Your task to perform on an android device: uninstall "Walmart Shopping & Grocery" Image 0: 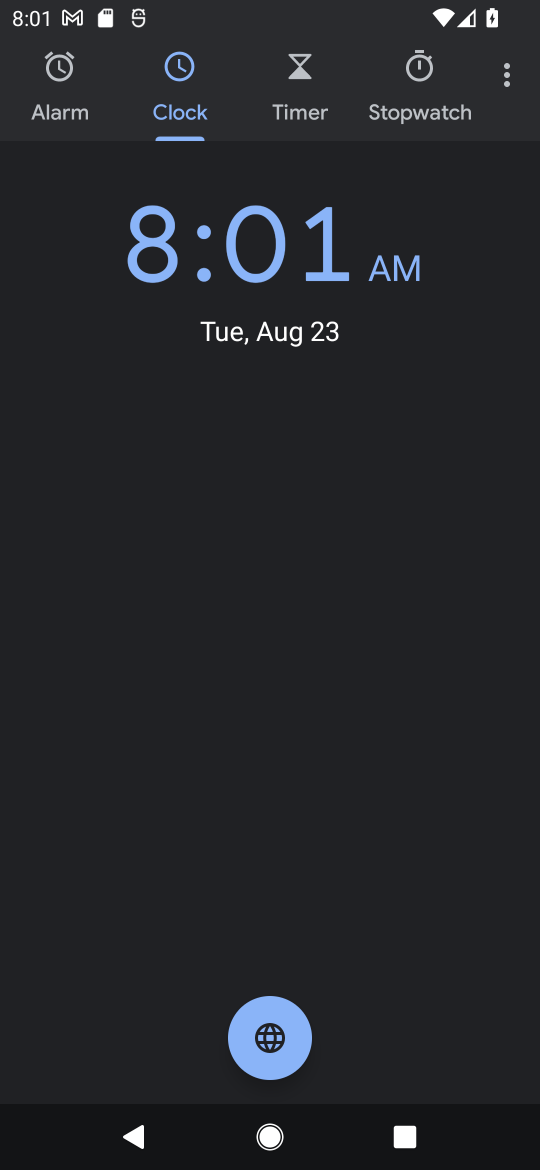
Step 0: press home button
Your task to perform on an android device: uninstall "Walmart Shopping & Grocery" Image 1: 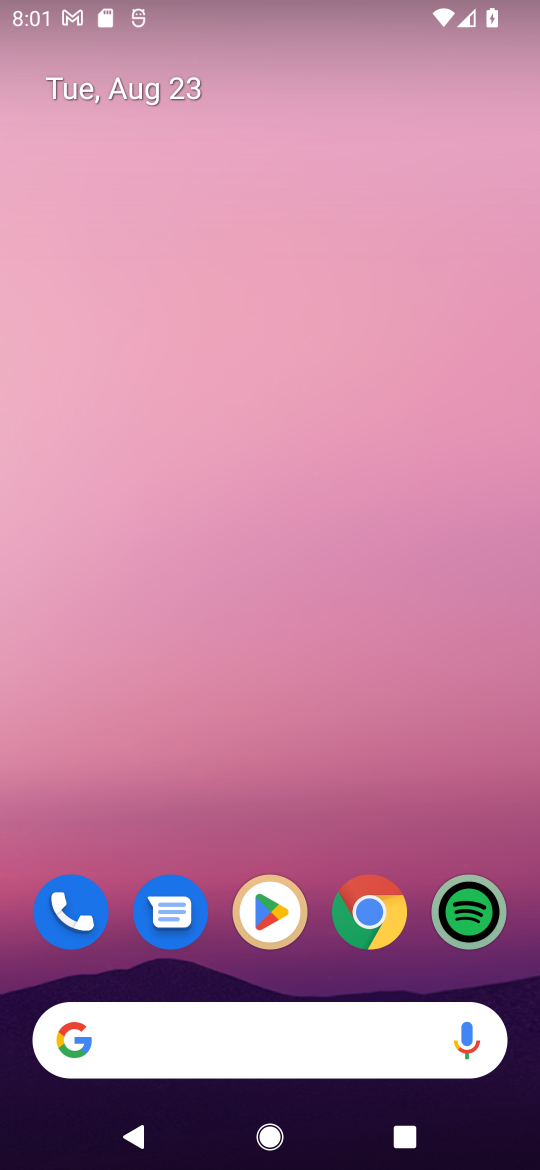
Step 1: click (271, 904)
Your task to perform on an android device: uninstall "Walmart Shopping & Grocery" Image 2: 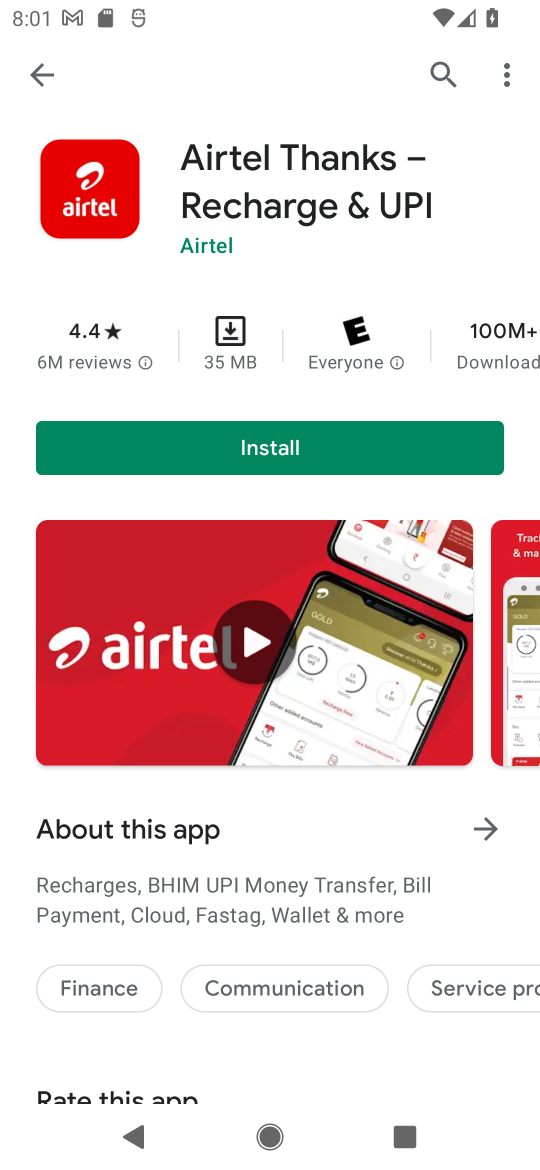
Step 2: click (446, 73)
Your task to perform on an android device: uninstall "Walmart Shopping & Grocery" Image 3: 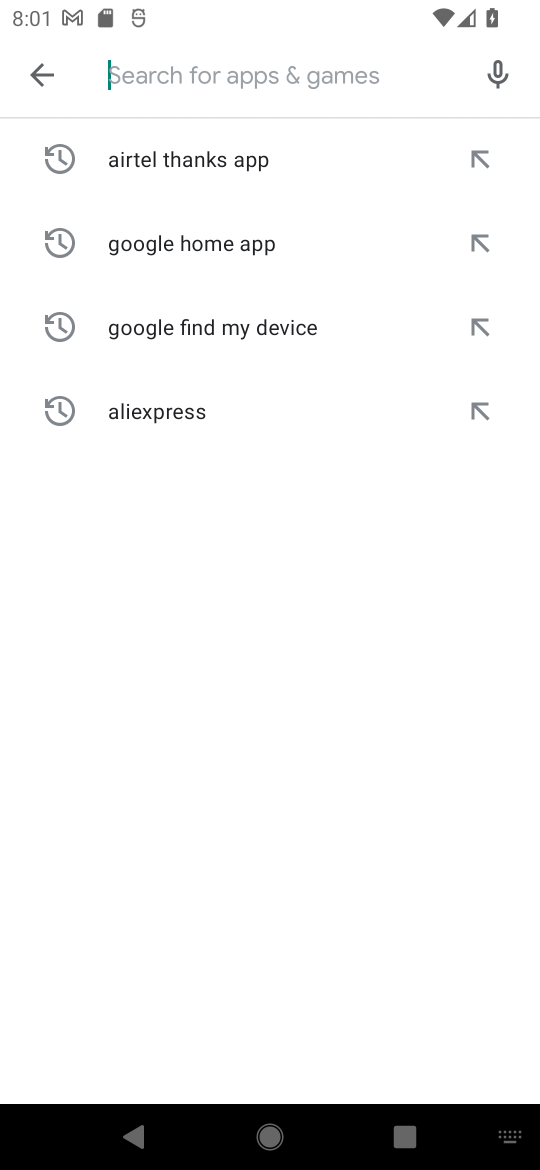
Step 3: type "Walmart Shopping & Grocer"
Your task to perform on an android device: uninstall "Walmart Shopping & Grocery" Image 4: 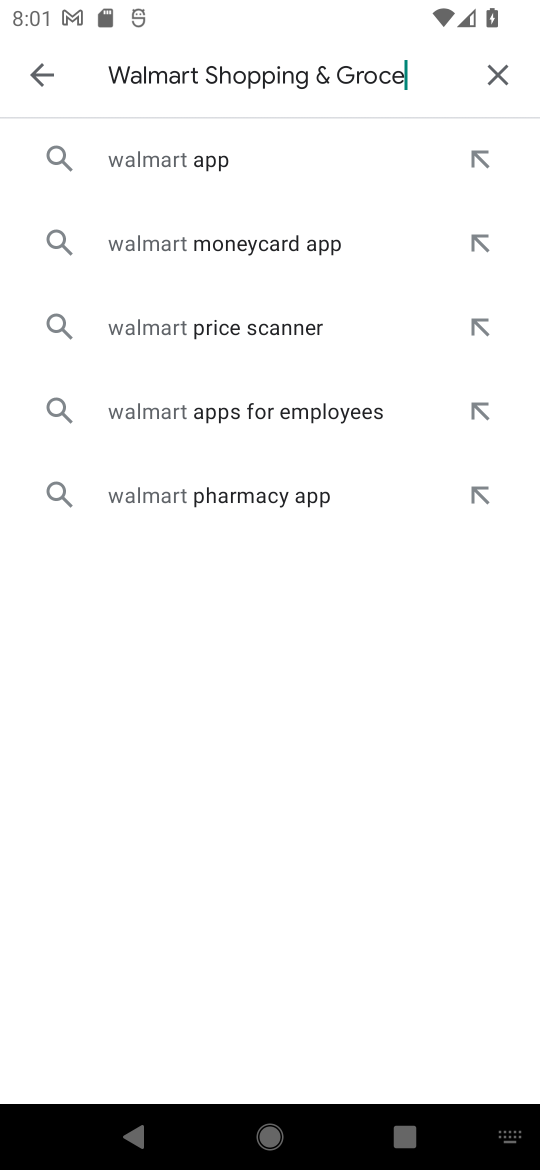
Step 4: type ""
Your task to perform on an android device: uninstall "Walmart Shopping & Grocery" Image 5: 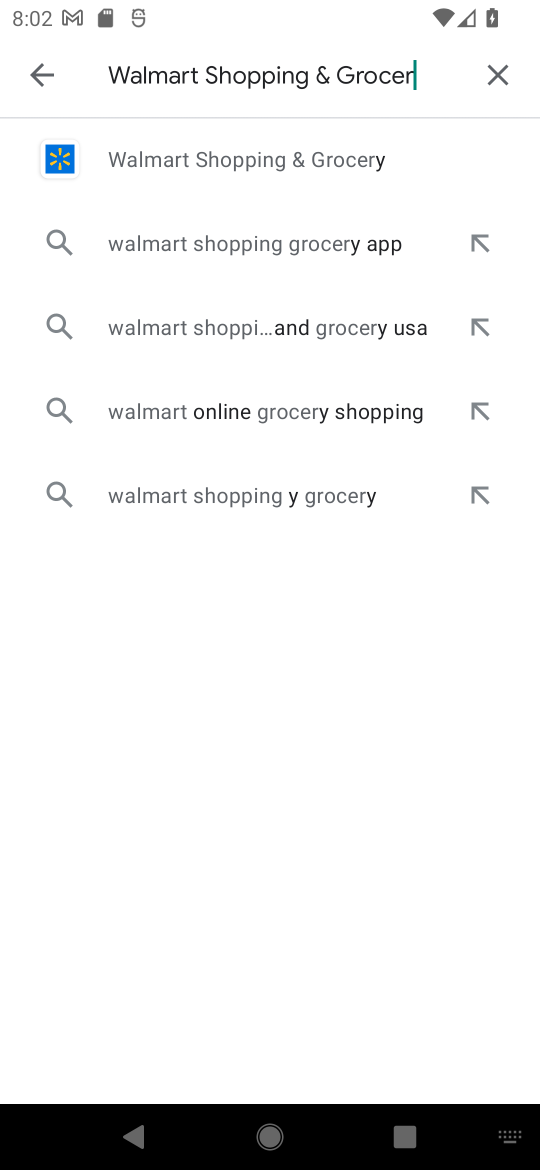
Step 5: click (218, 159)
Your task to perform on an android device: uninstall "Walmart Shopping & Grocery" Image 6: 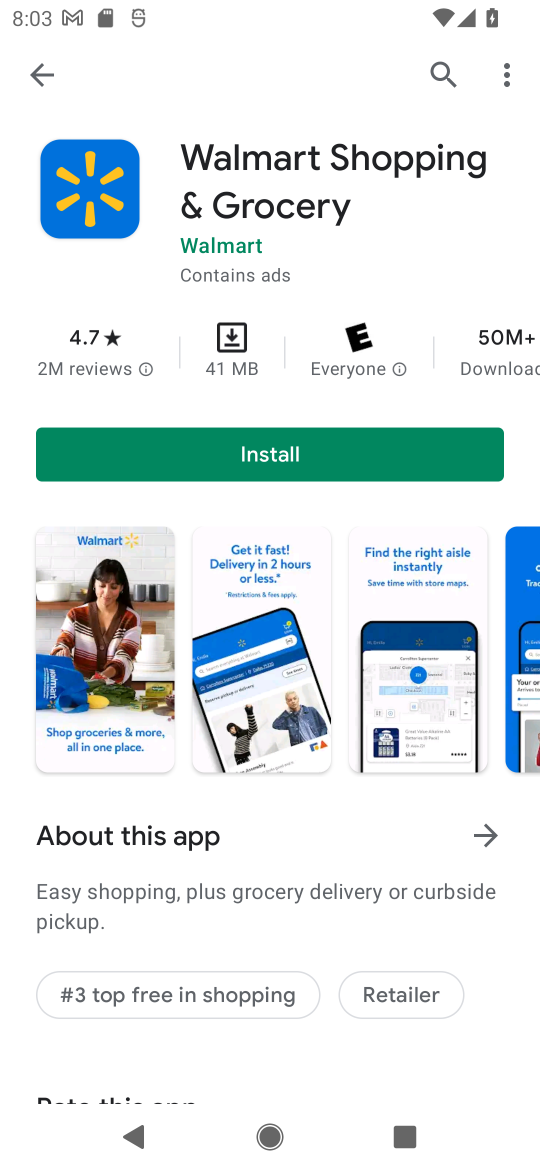
Step 6: task complete